Your task to perform on an android device: find snoozed emails in the gmail app Image 0: 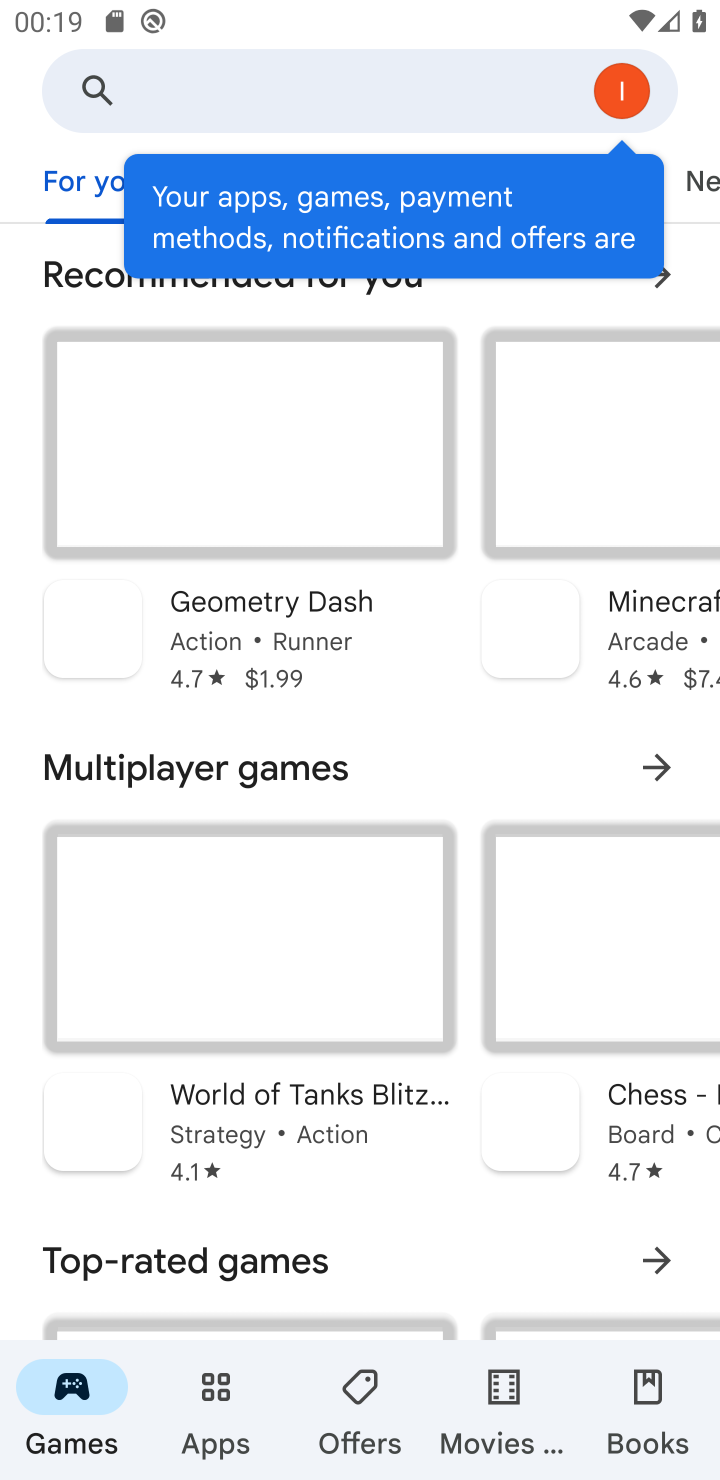
Step 0: press home button
Your task to perform on an android device: find snoozed emails in the gmail app Image 1: 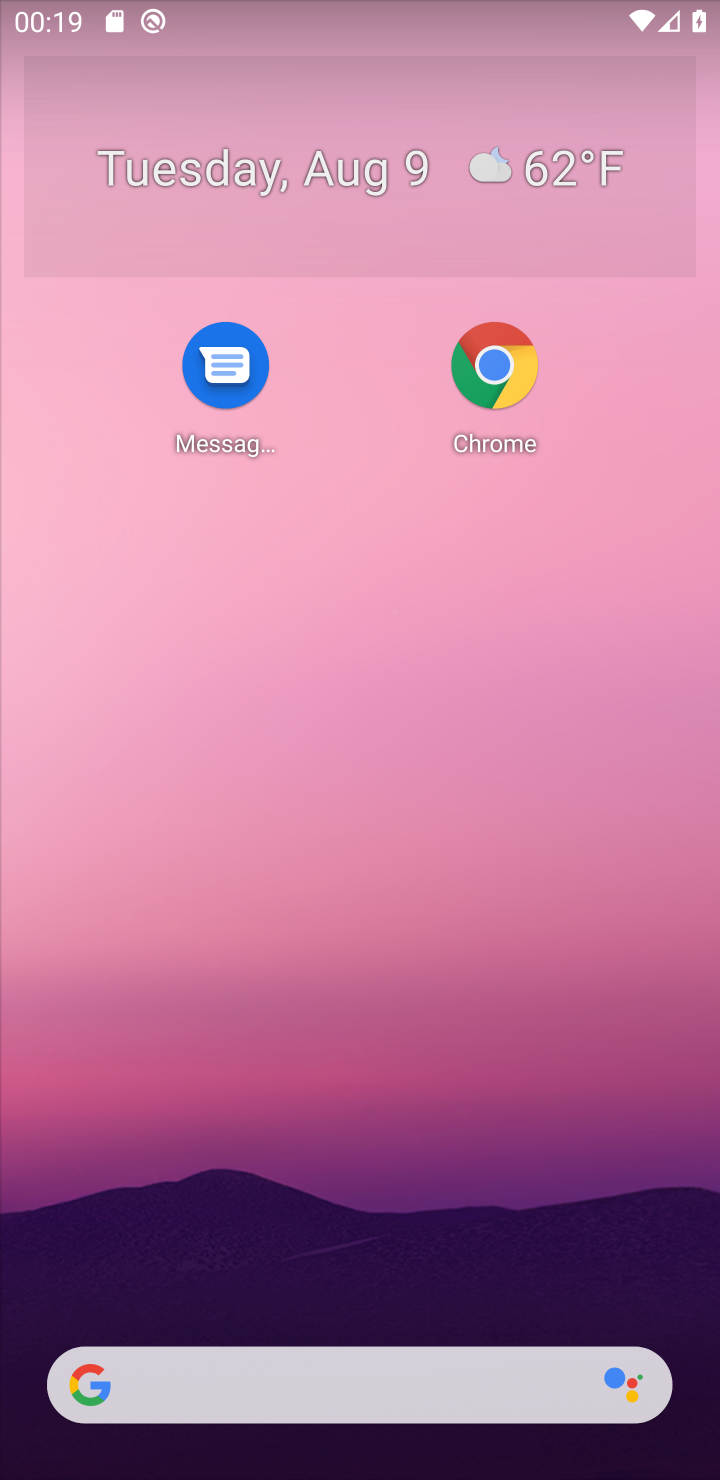
Step 1: drag from (221, 1200) to (221, 463)
Your task to perform on an android device: find snoozed emails in the gmail app Image 2: 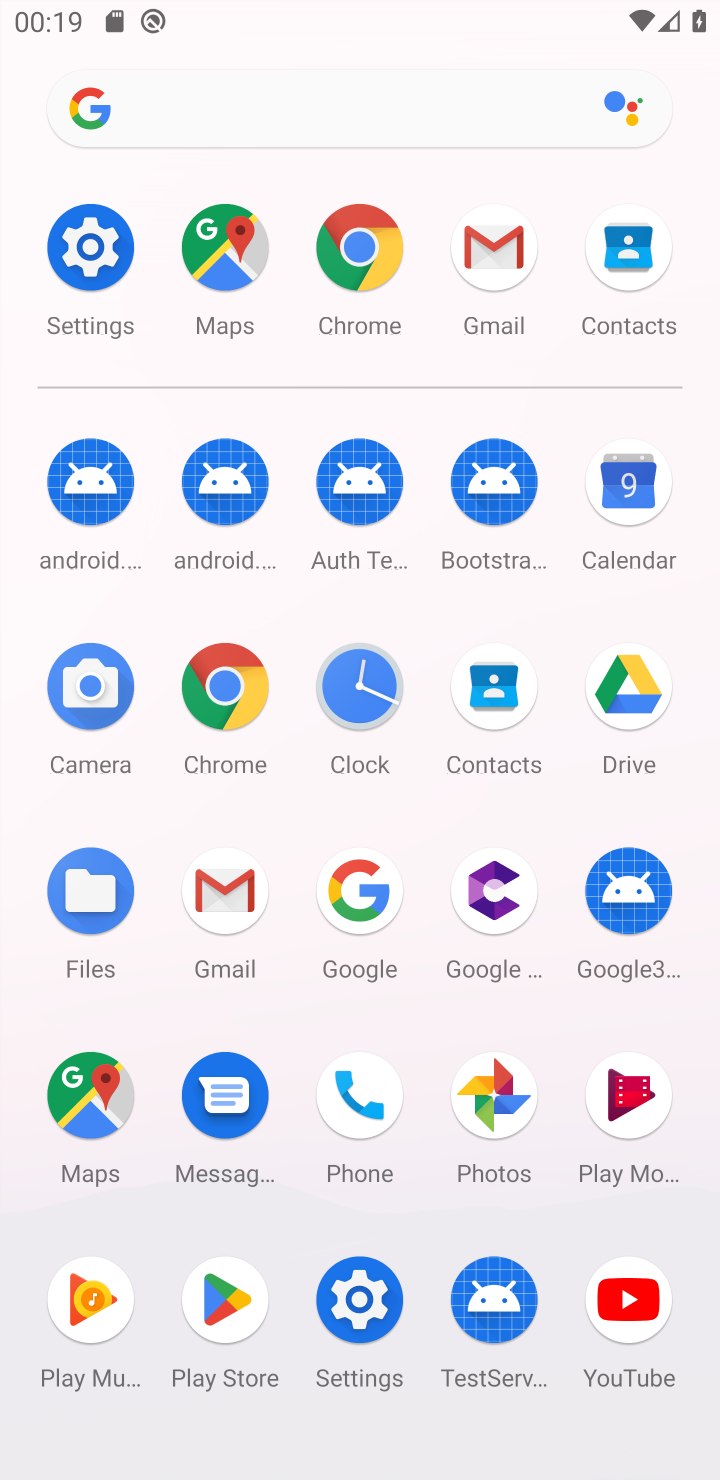
Step 2: click (485, 235)
Your task to perform on an android device: find snoozed emails in the gmail app Image 3: 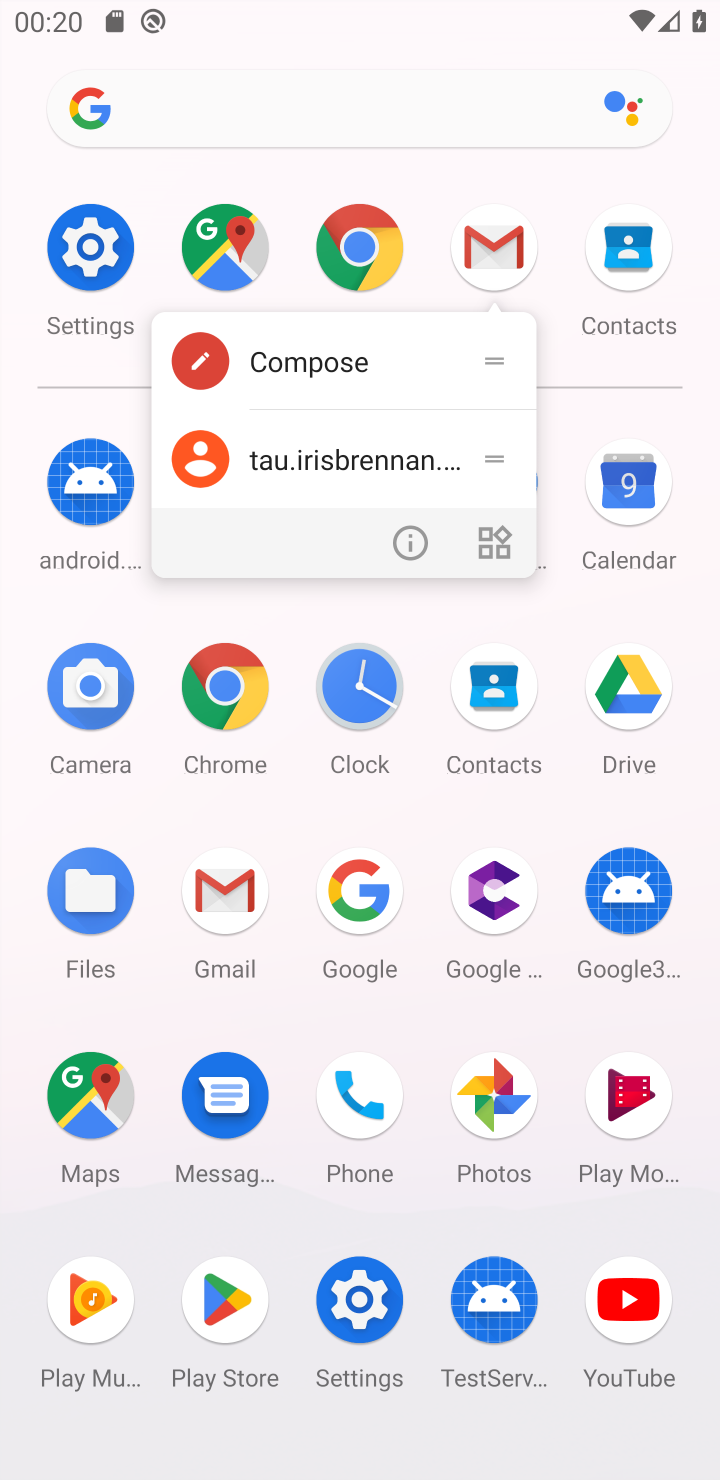
Step 3: click (512, 243)
Your task to perform on an android device: find snoozed emails in the gmail app Image 4: 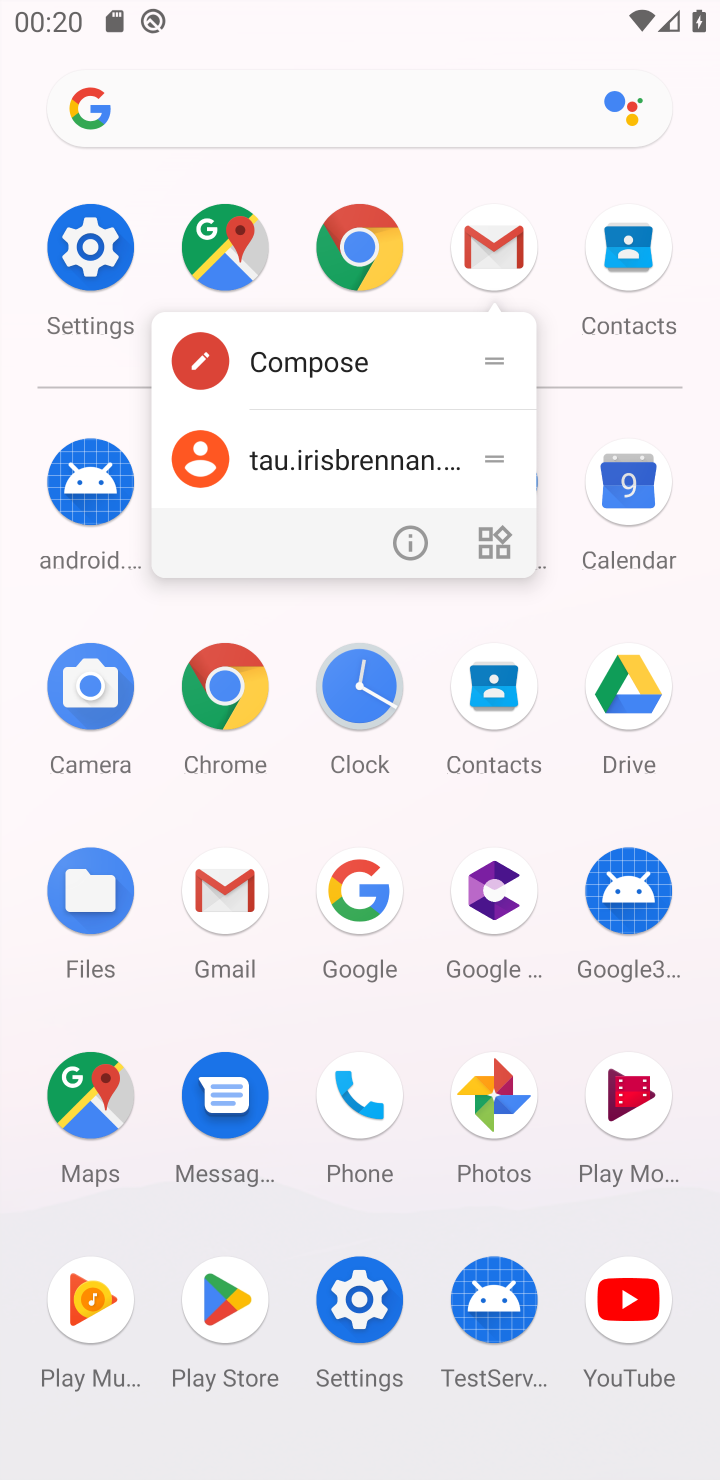
Step 4: click (481, 219)
Your task to perform on an android device: find snoozed emails in the gmail app Image 5: 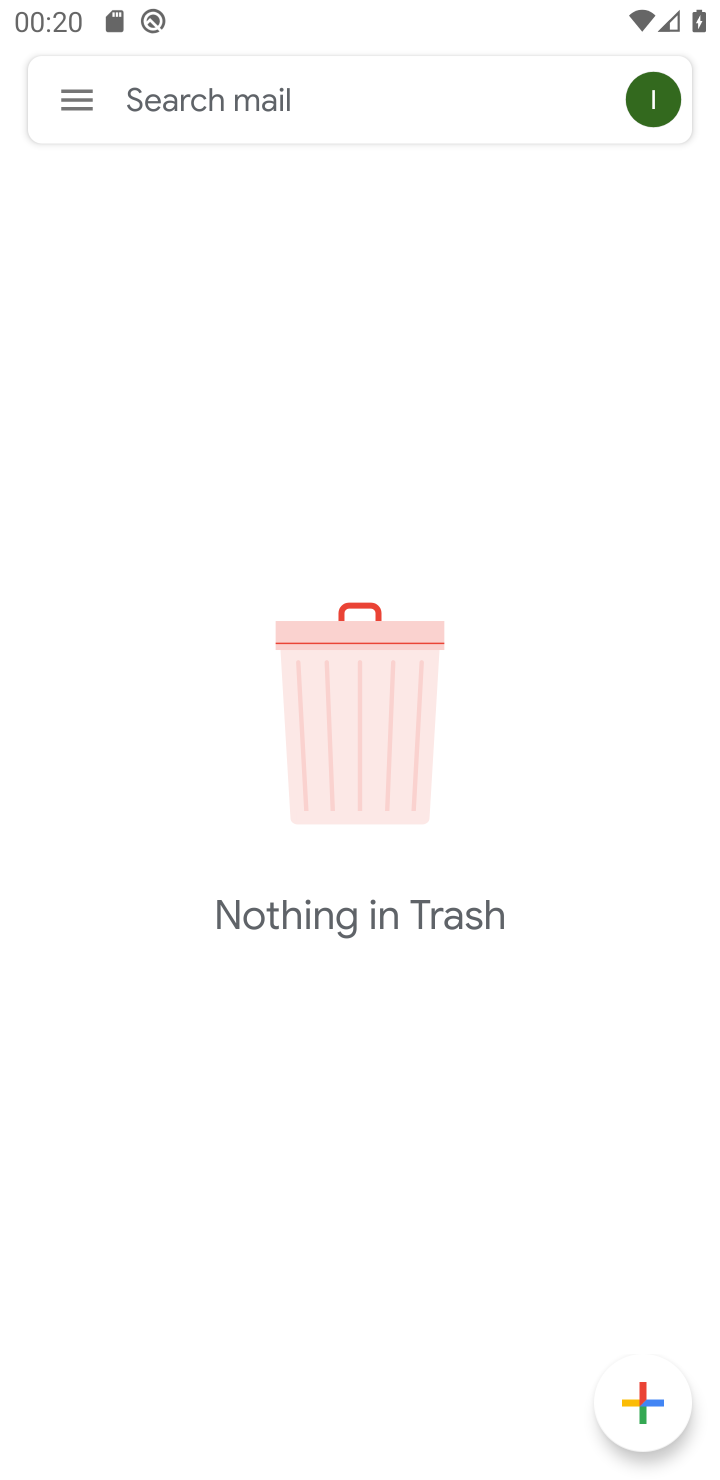
Step 5: click (97, 101)
Your task to perform on an android device: find snoozed emails in the gmail app Image 6: 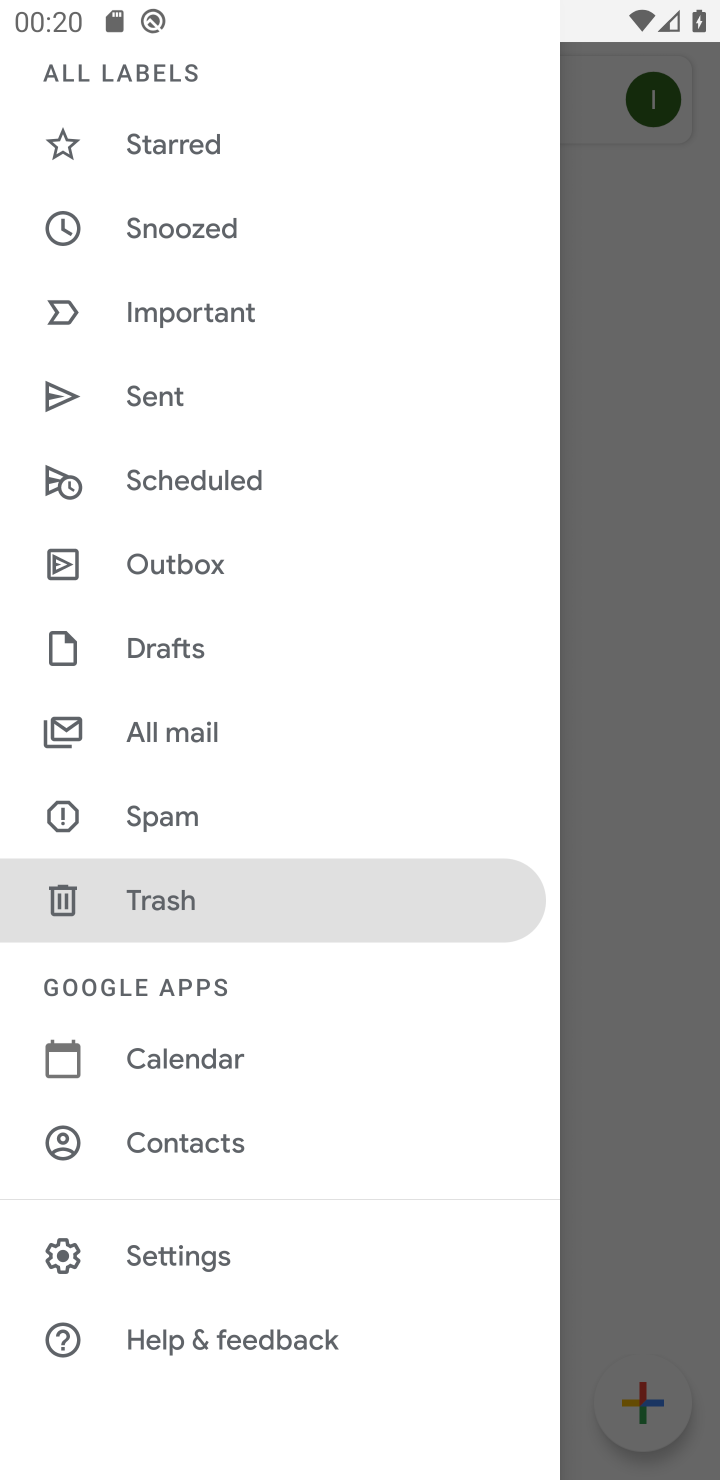
Step 6: click (211, 236)
Your task to perform on an android device: find snoozed emails in the gmail app Image 7: 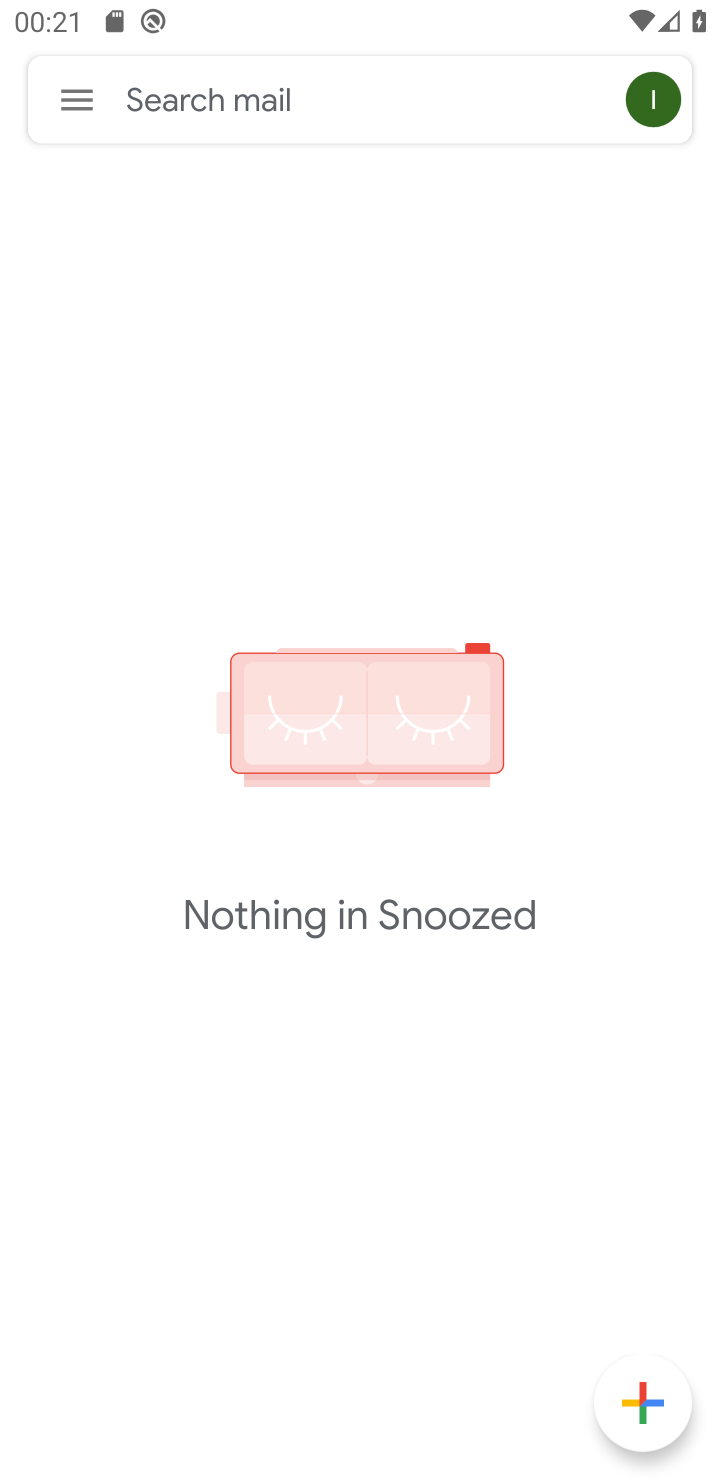
Step 7: task complete